Your task to perform on an android device: Show me popular videos on Youtube Image 0: 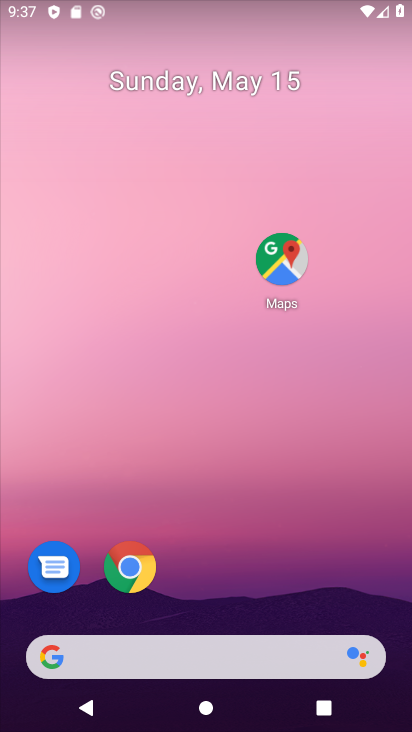
Step 0: drag from (231, 573) to (190, 94)
Your task to perform on an android device: Show me popular videos on Youtube Image 1: 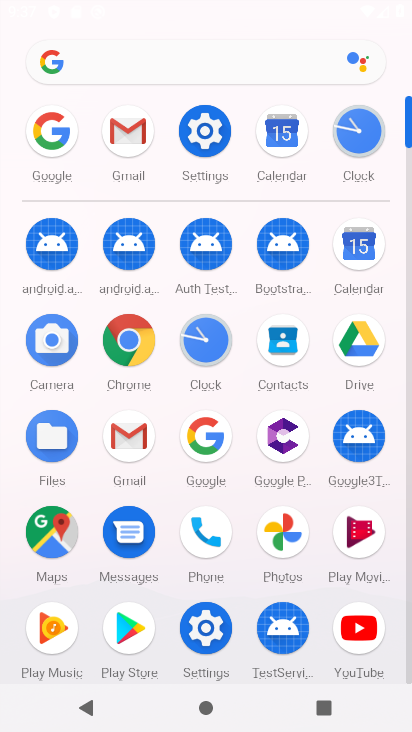
Step 1: click (366, 622)
Your task to perform on an android device: Show me popular videos on Youtube Image 2: 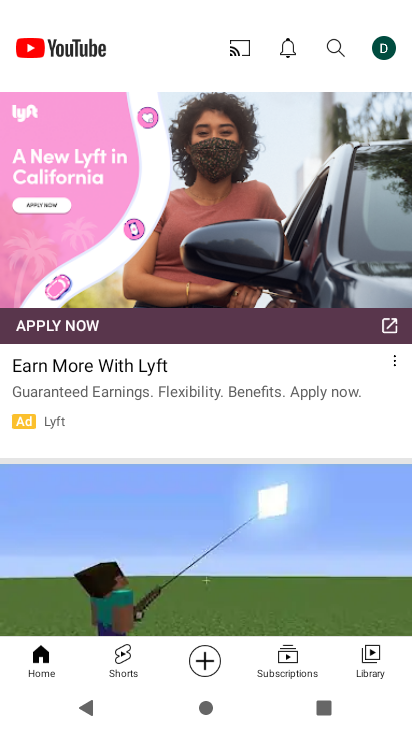
Step 2: task complete